Your task to perform on an android device: Is it going to rain tomorrow? Image 0: 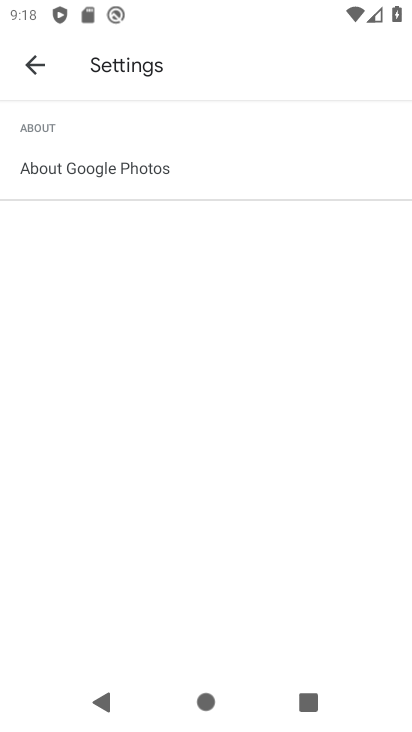
Step 0: press home button
Your task to perform on an android device: Is it going to rain tomorrow? Image 1: 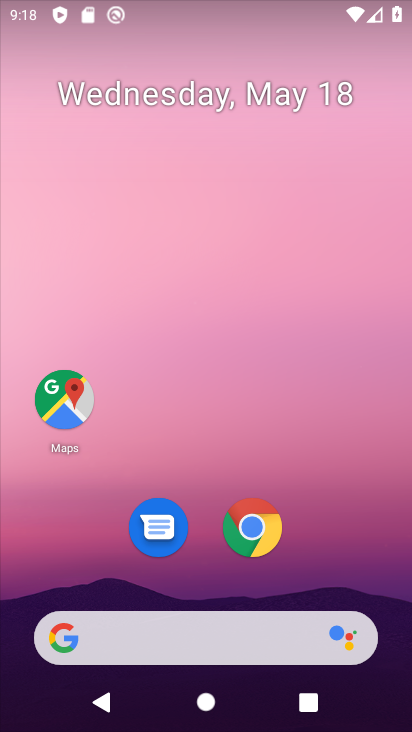
Step 1: click (201, 629)
Your task to perform on an android device: Is it going to rain tomorrow? Image 2: 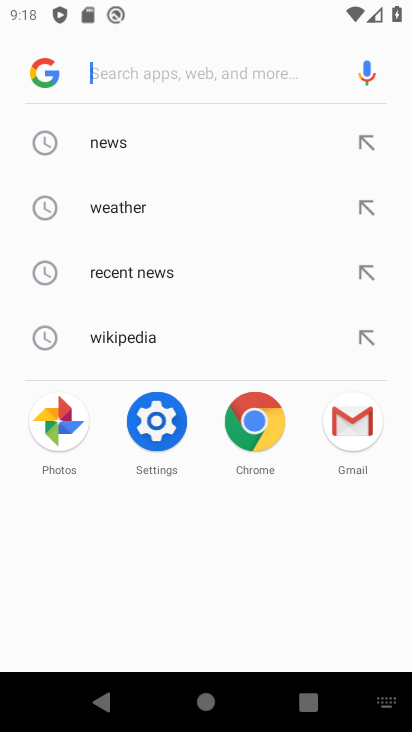
Step 2: click (188, 212)
Your task to perform on an android device: Is it going to rain tomorrow? Image 3: 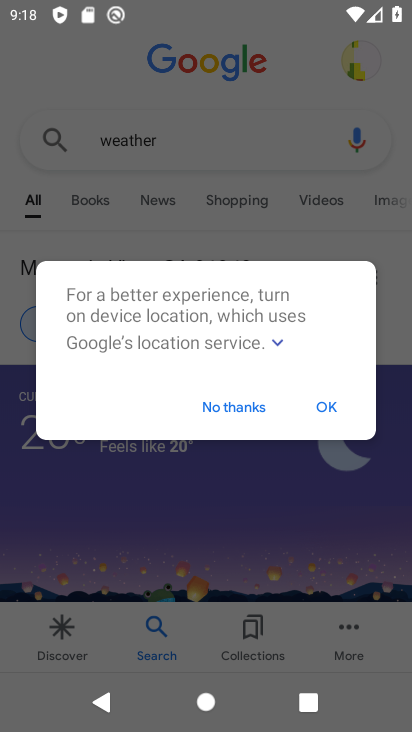
Step 3: click (324, 399)
Your task to perform on an android device: Is it going to rain tomorrow? Image 4: 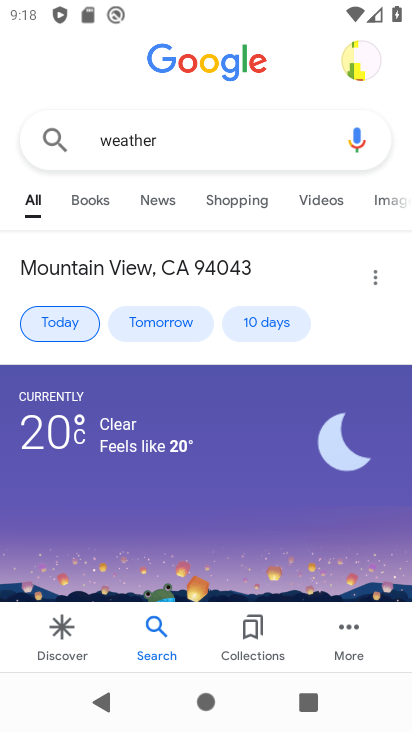
Step 4: click (182, 322)
Your task to perform on an android device: Is it going to rain tomorrow? Image 5: 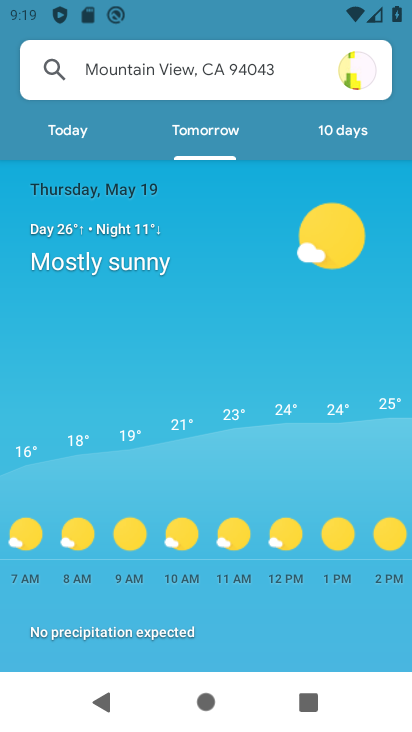
Step 5: task complete